Your task to perform on an android device: Open ESPN.com Image 0: 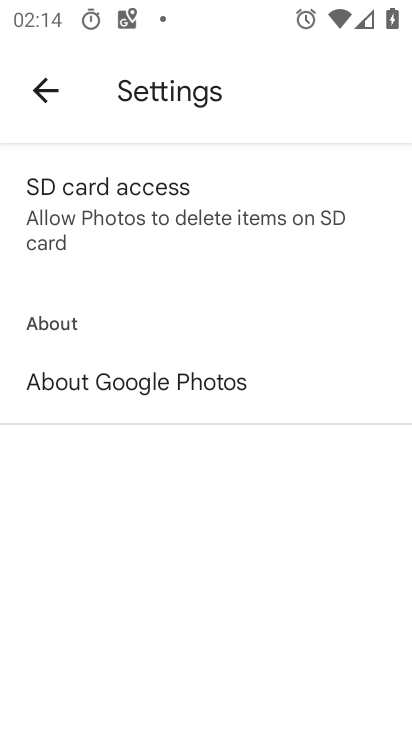
Step 0: press home button
Your task to perform on an android device: Open ESPN.com Image 1: 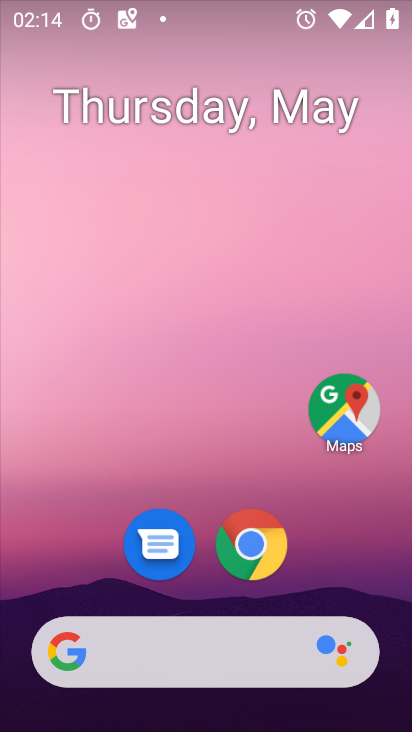
Step 1: drag from (371, 592) to (365, 261)
Your task to perform on an android device: Open ESPN.com Image 2: 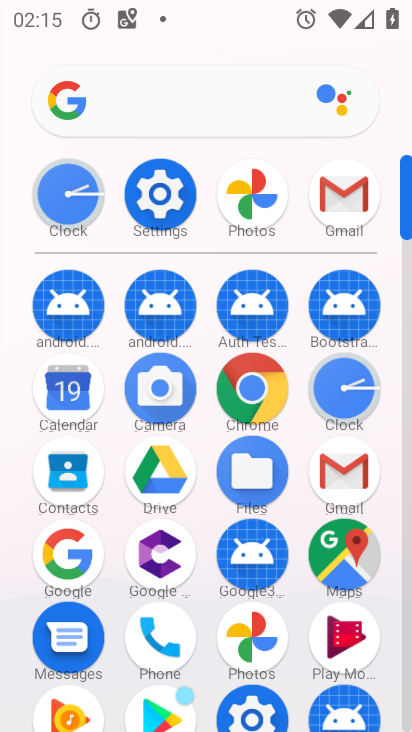
Step 2: click (259, 410)
Your task to perform on an android device: Open ESPN.com Image 3: 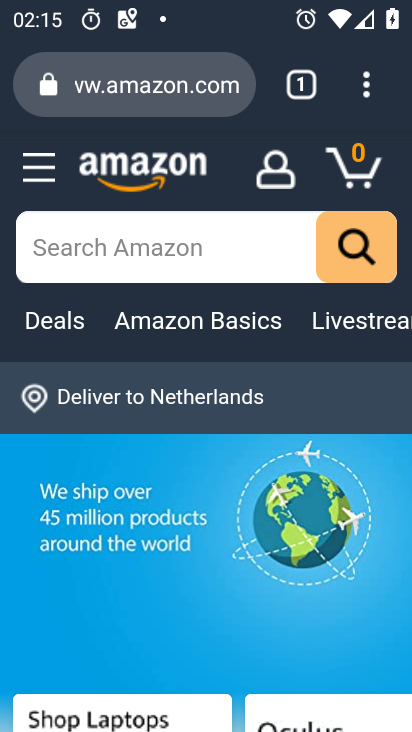
Step 3: press back button
Your task to perform on an android device: Open ESPN.com Image 4: 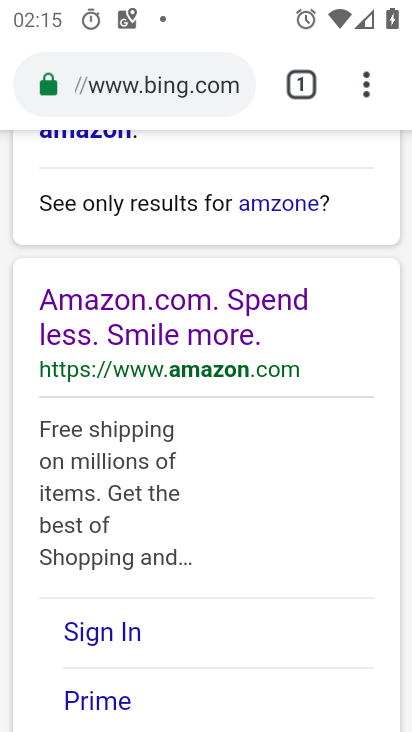
Step 4: press back button
Your task to perform on an android device: Open ESPN.com Image 5: 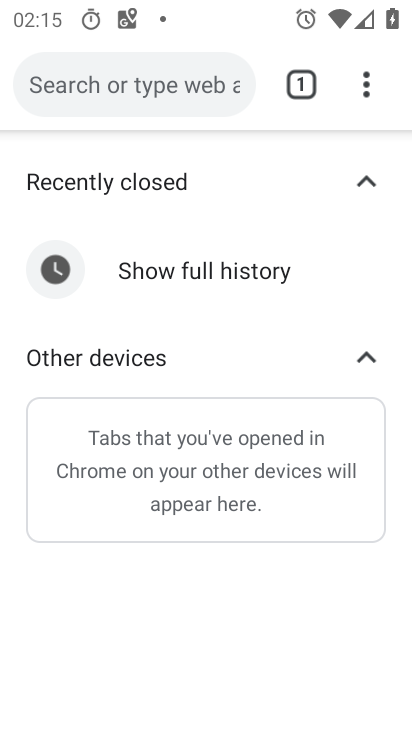
Step 5: press back button
Your task to perform on an android device: Open ESPN.com Image 6: 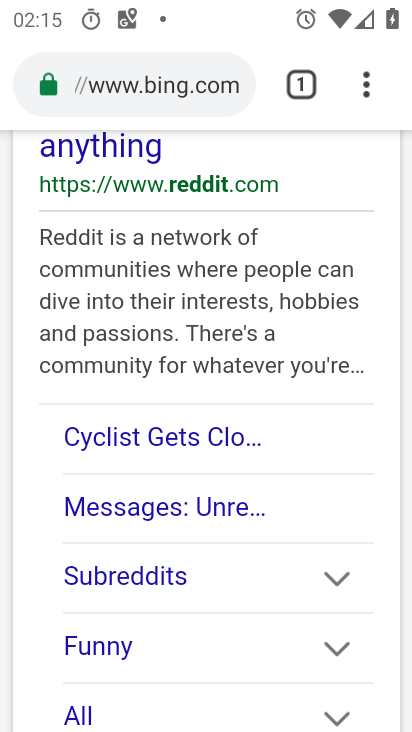
Step 6: press back button
Your task to perform on an android device: Open ESPN.com Image 7: 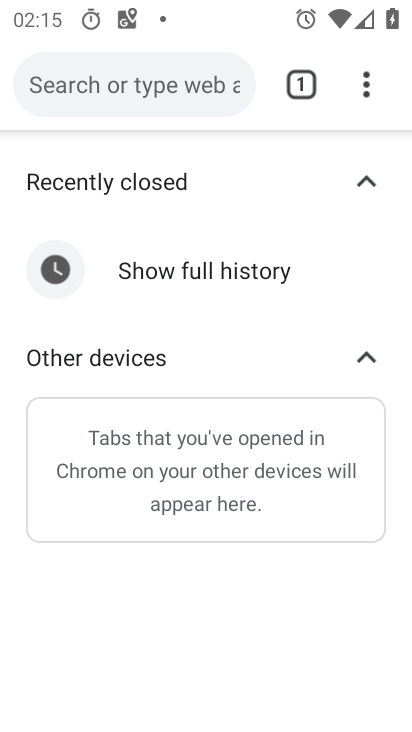
Step 7: press back button
Your task to perform on an android device: Open ESPN.com Image 8: 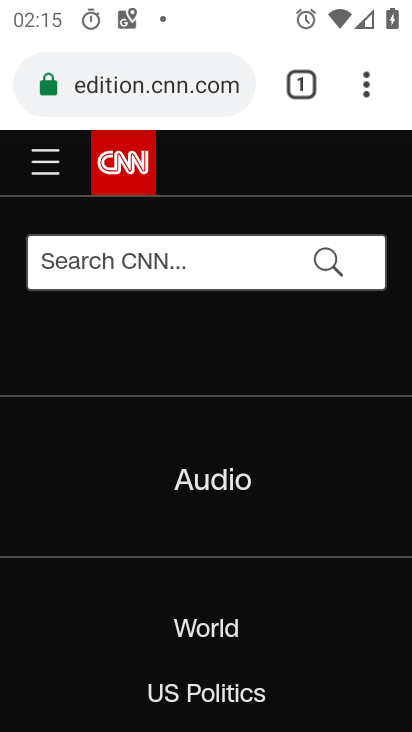
Step 8: press back button
Your task to perform on an android device: Open ESPN.com Image 9: 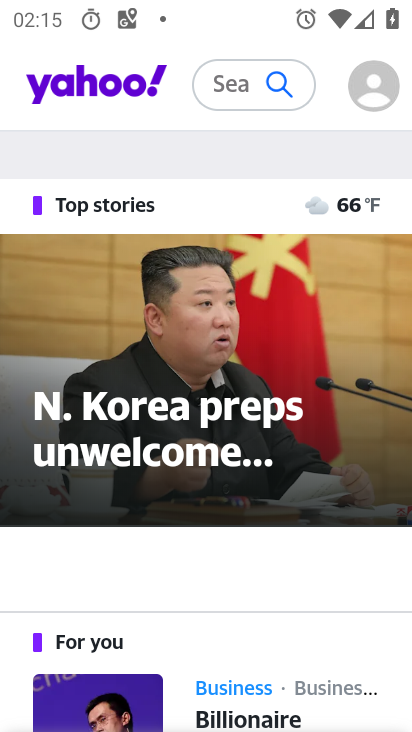
Step 9: press back button
Your task to perform on an android device: Open ESPN.com Image 10: 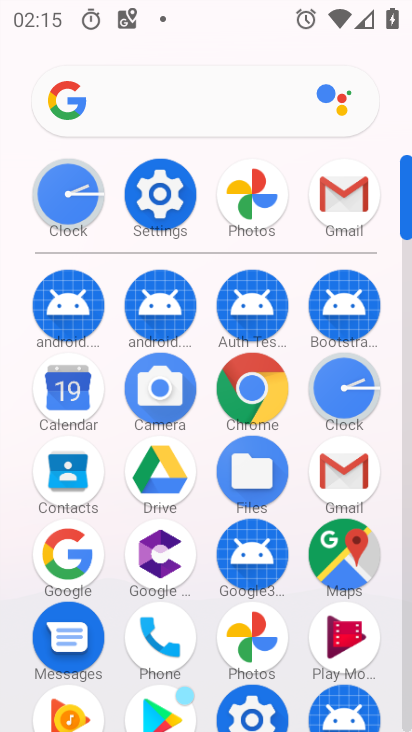
Step 10: click (274, 400)
Your task to perform on an android device: Open ESPN.com Image 11: 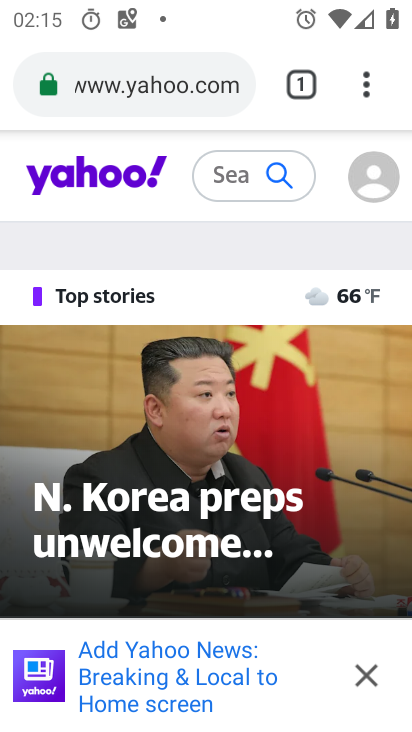
Step 11: click (206, 103)
Your task to perform on an android device: Open ESPN.com Image 12: 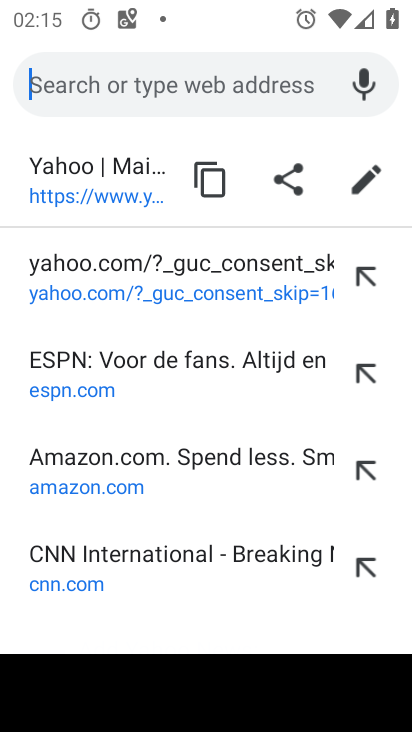
Step 12: type "espn"
Your task to perform on an android device: Open ESPN.com Image 13: 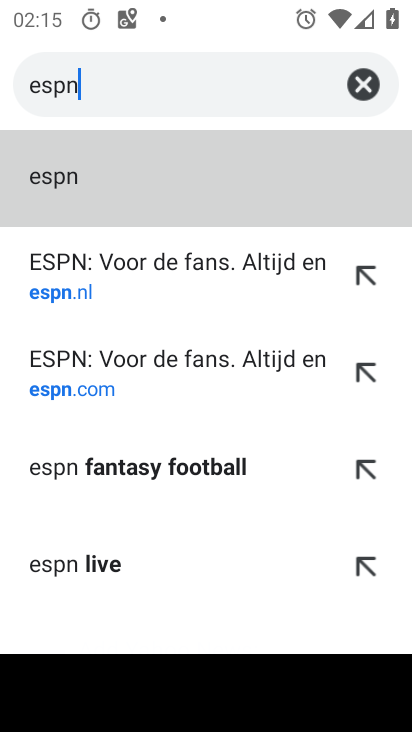
Step 13: click (119, 191)
Your task to perform on an android device: Open ESPN.com Image 14: 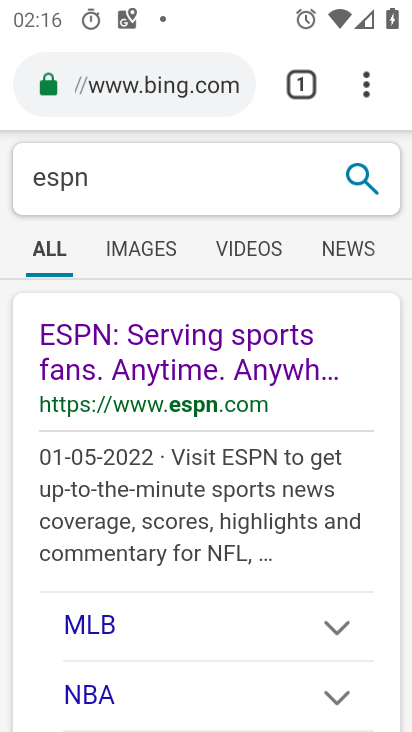
Step 14: task complete